Your task to perform on an android device: Go to notification settings Image 0: 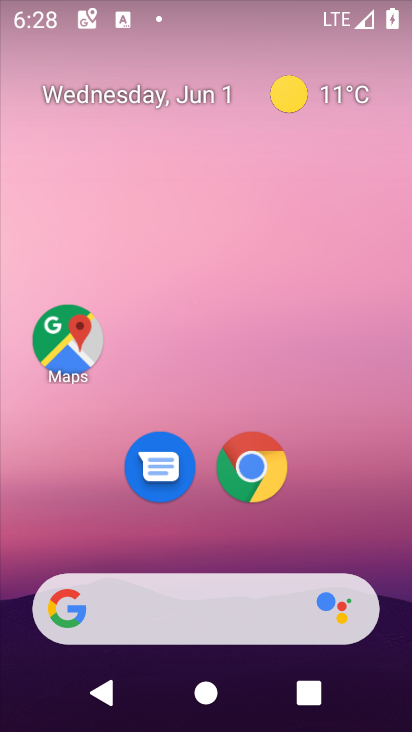
Step 0: drag from (262, 326) to (192, 25)
Your task to perform on an android device: Go to notification settings Image 1: 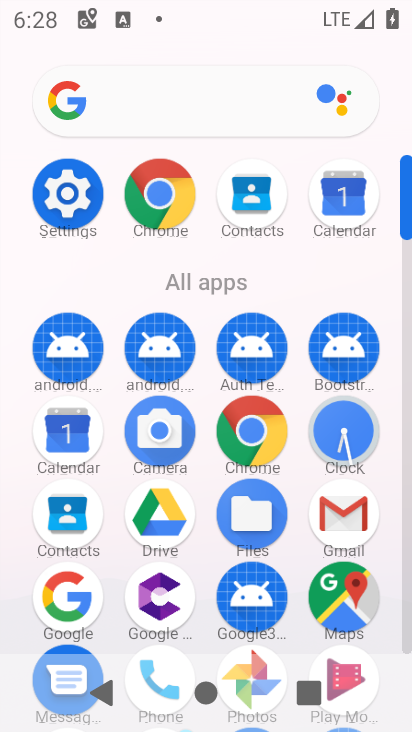
Step 1: click (74, 206)
Your task to perform on an android device: Go to notification settings Image 2: 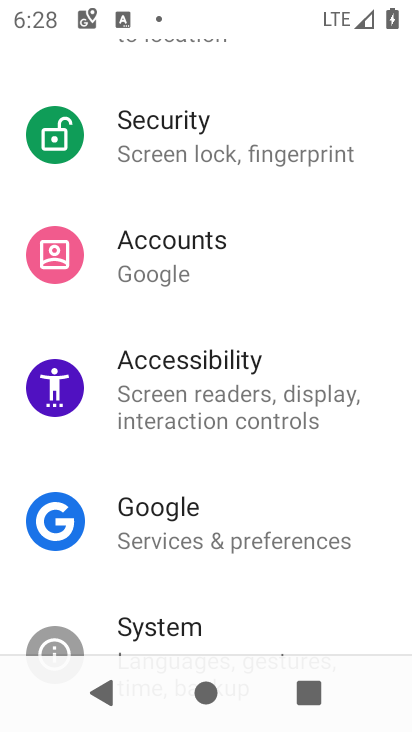
Step 2: task complete